Your task to perform on an android device: Do I have any events this weekend? Image 0: 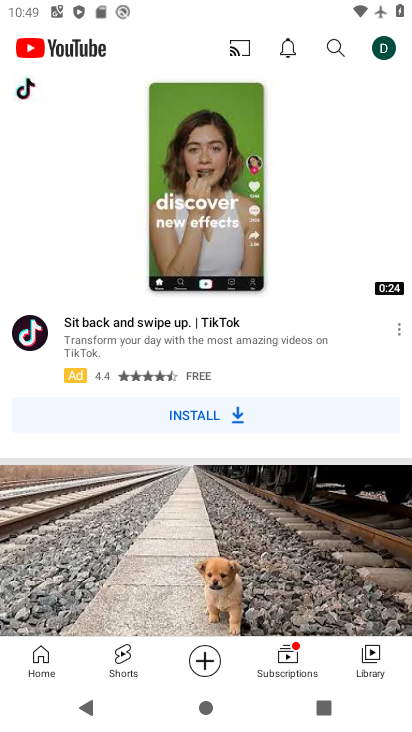
Step 0: press home button
Your task to perform on an android device: Do I have any events this weekend? Image 1: 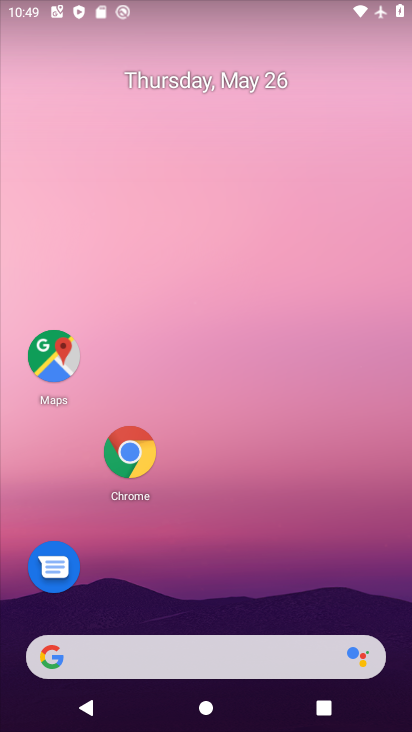
Step 1: drag from (206, 646) to (348, 94)
Your task to perform on an android device: Do I have any events this weekend? Image 2: 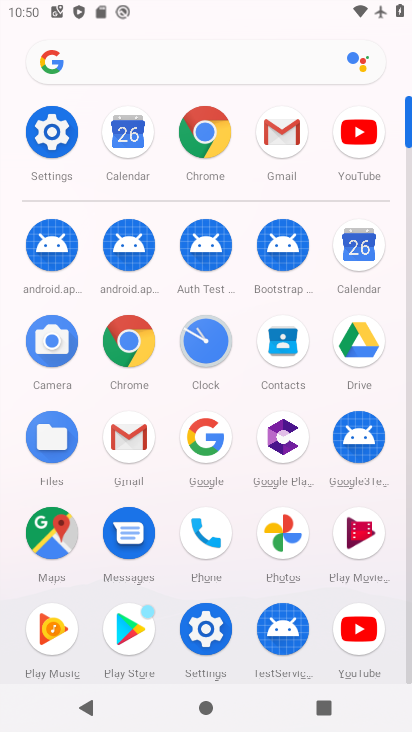
Step 2: click (120, 143)
Your task to perform on an android device: Do I have any events this weekend? Image 3: 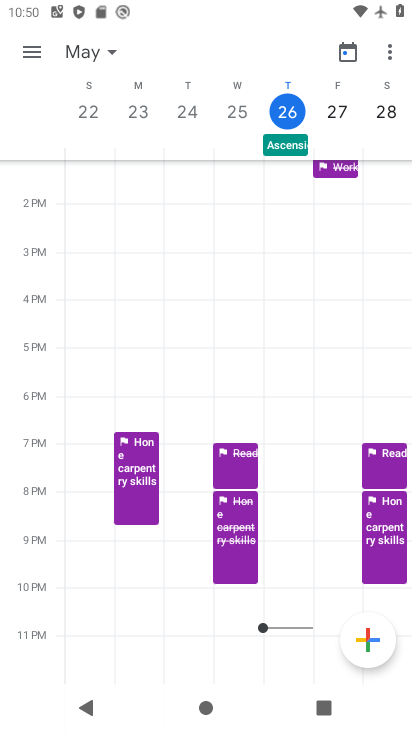
Step 3: click (73, 48)
Your task to perform on an android device: Do I have any events this weekend? Image 4: 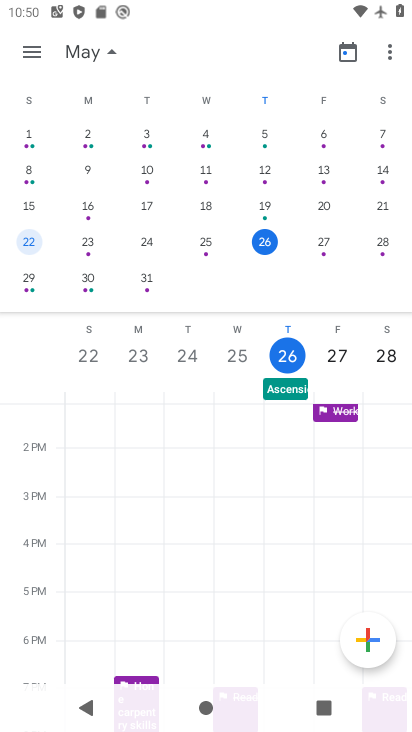
Step 4: click (380, 247)
Your task to perform on an android device: Do I have any events this weekend? Image 5: 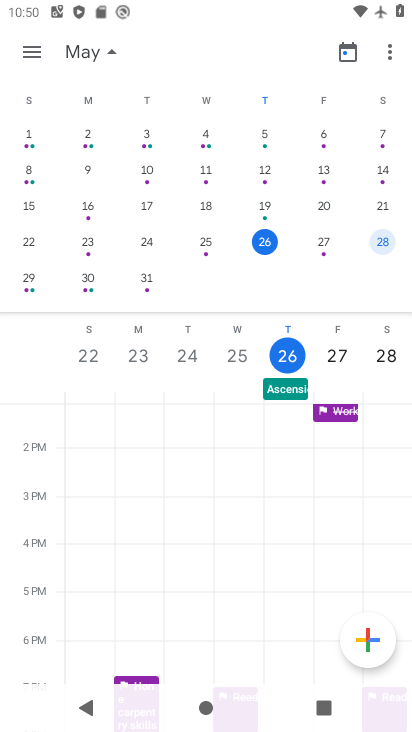
Step 5: click (27, 43)
Your task to perform on an android device: Do I have any events this weekend? Image 6: 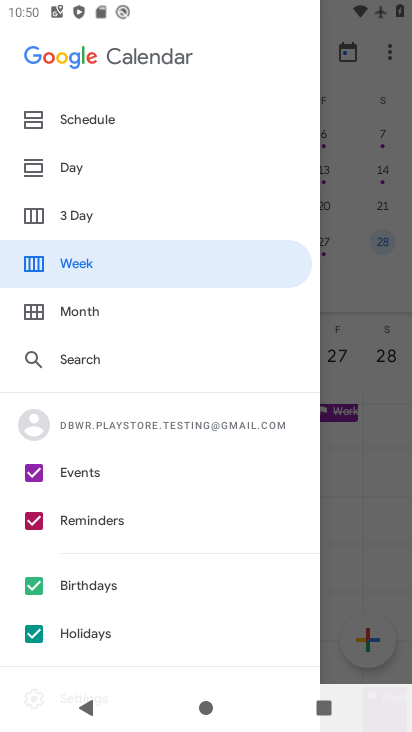
Step 6: click (79, 163)
Your task to perform on an android device: Do I have any events this weekend? Image 7: 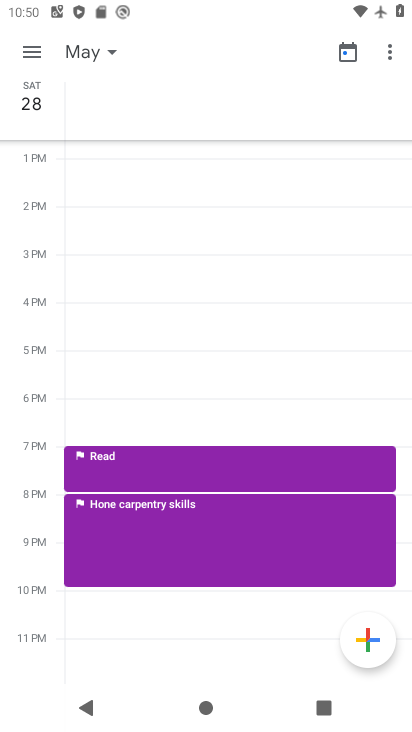
Step 7: click (32, 50)
Your task to perform on an android device: Do I have any events this weekend? Image 8: 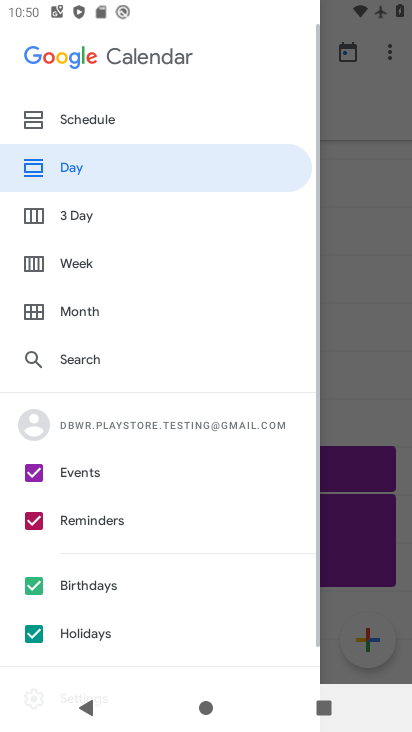
Step 8: click (92, 117)
Your task to perform on an android device: Do I have any events this weekend? Image 9: 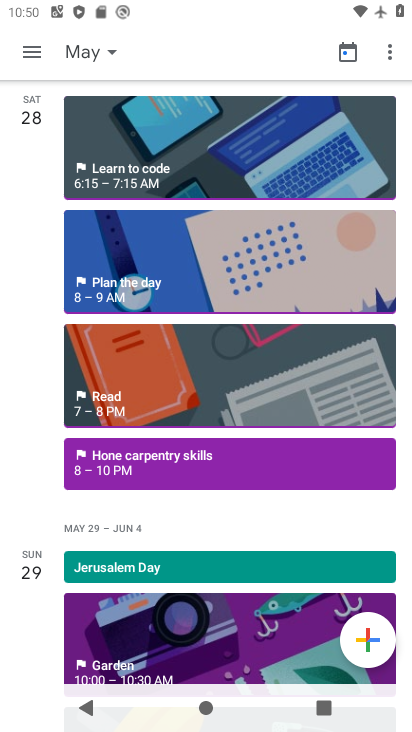
Step 9: click (146, 460)
Your task to perform on an android device: Do I have any events this weekend? Image 10: 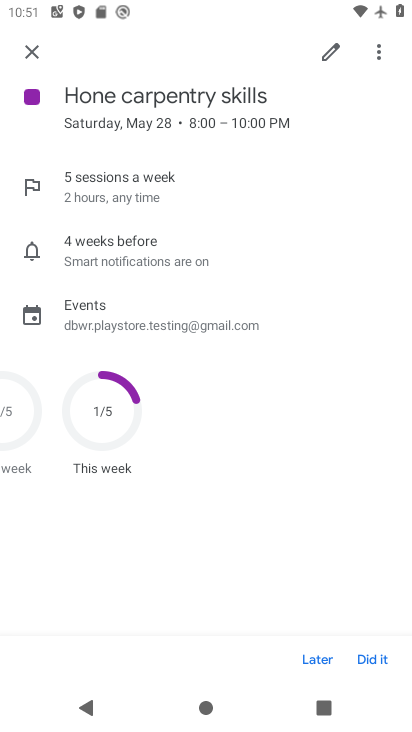
Step 10: task complete